Your task to perform on an android device: Go to accessibility settings Image 0: 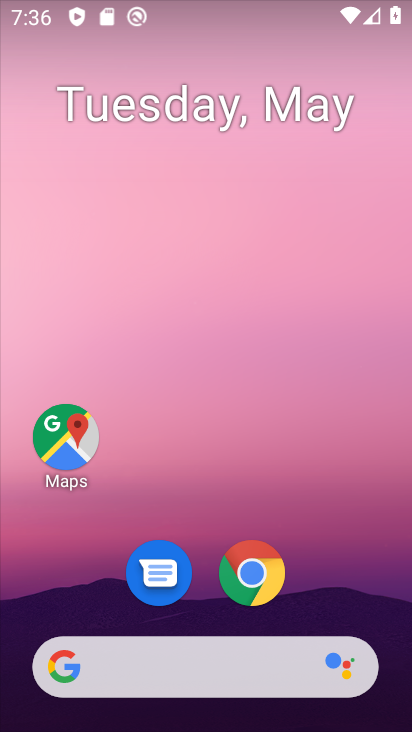
Step 0: drag from (197, 607) to (243, 159)
Your task to perform on an android device: Go to accessibility settings Image 1: 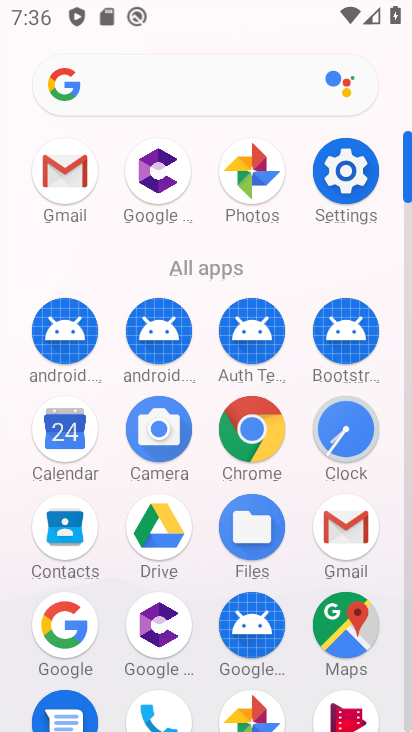
Step 1: click (344, 166)
Your task to perform on an android device: Go to accessibility settings Image 2: 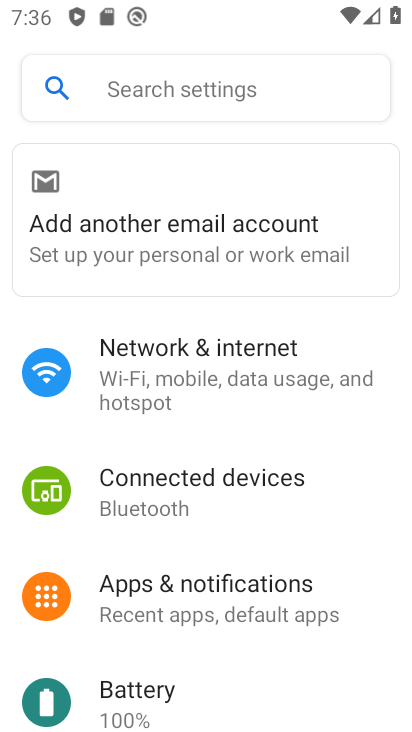
Step 2: drag from (246, 535) to (245, 226)
Your task to perform on an android device: Go to accessibility settings Image 3: 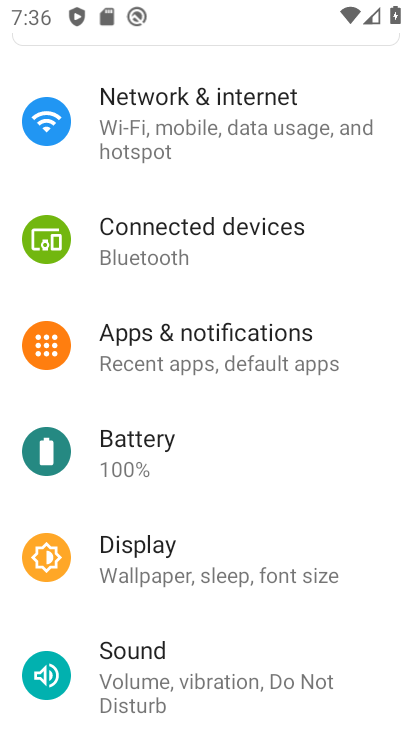
Step 3: drag from (224, 517) to (263, 246)
Your task to perform on an android device: Go to accessibility settings Image 4: 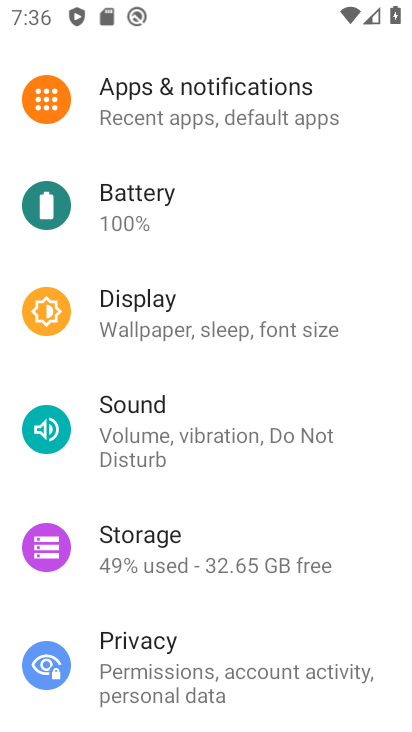
Step 4: drag from (218, 652) to (263, 332)
Your task to perform on an android device: Go to accessibility settings Image 5: 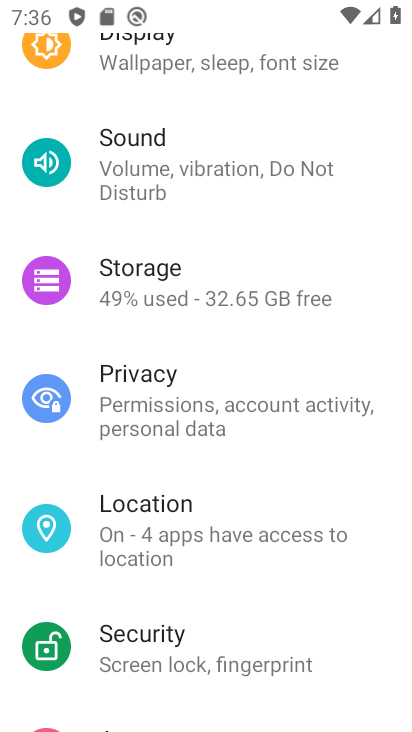
Step 5: drag from (211, 641) to (244, 352)
Your task to perform on an android device: Go to accessibility settings Image 6: 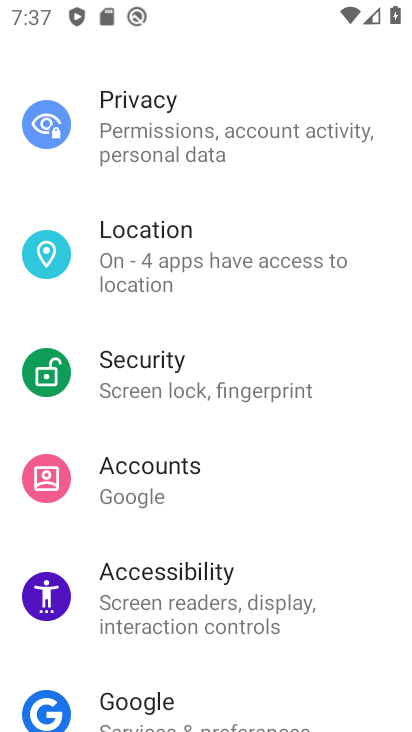
Step 6: click (159, 599)
Your task to perform on an android device: Go to accessibility settings Image 7: 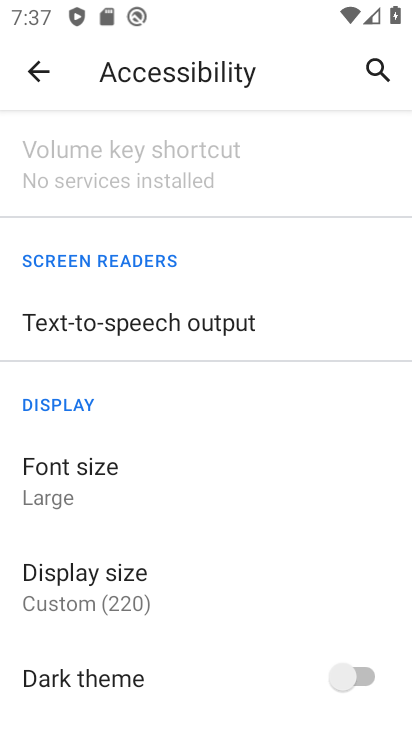
Step 7: task complete